Your task to perform on an android device: change notification settings in the gmail app Image 0: 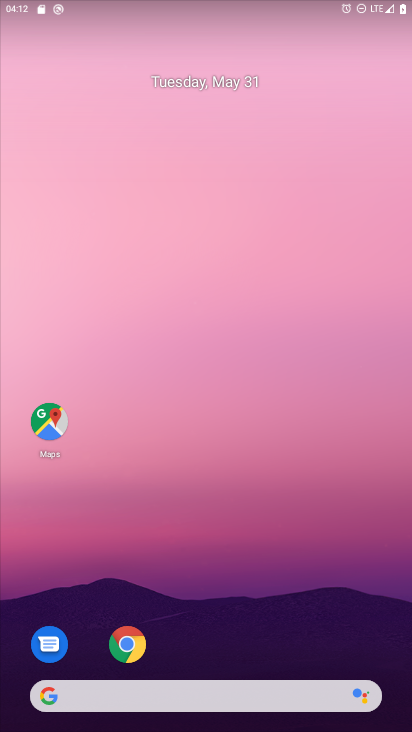
Step 0: drag from (210, 548) to (184, 87)
Your task to perform on an android device: change notification settings in the gmail app Image 1: 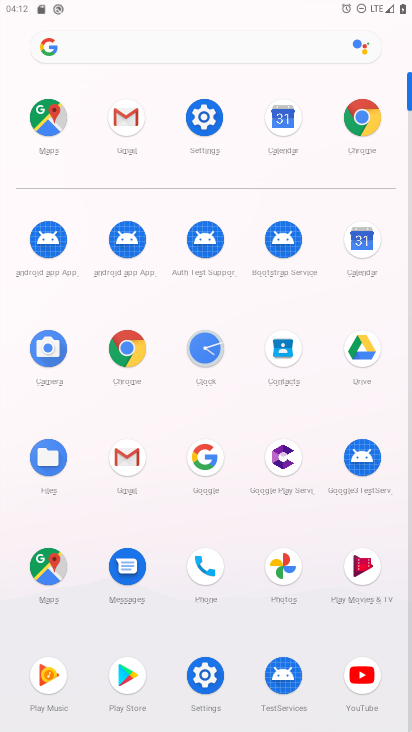
Step 1: click (128, 447)
Your task to perform on an android device: change notification settings in the gmail app Image 2: 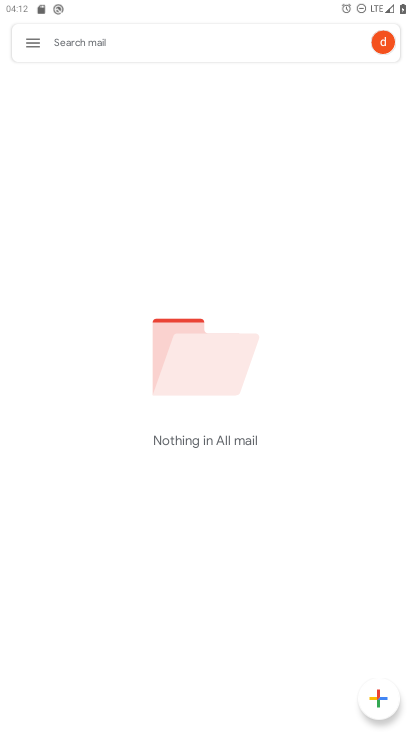
Step 2: click (28, 41)
Your task to perform on an android device: change notification settings in the gmail app Image 3: 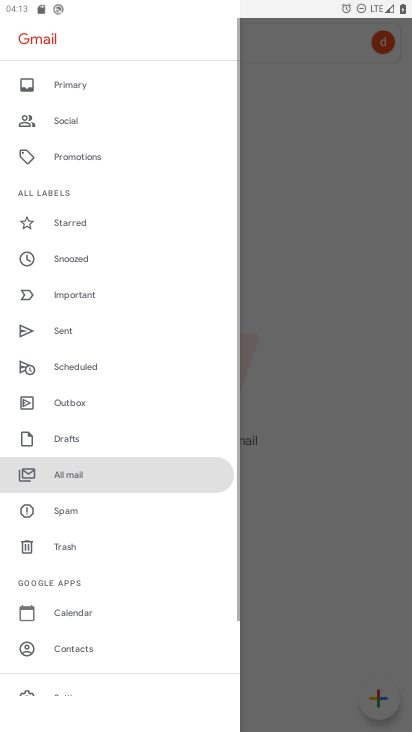
Step 3: drag from (114, 613) to (172, 135)
Your task to perform on an android device: change notification settings in the gmail app Image 4: 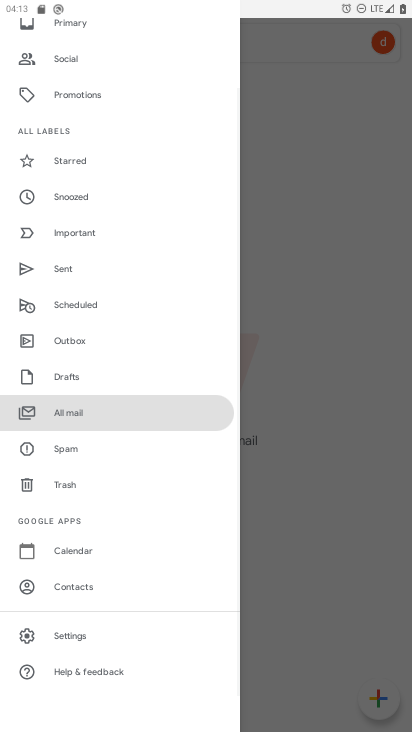
Step 4: click (70, 637)
Your task to perform on an android device: change notification settings in the gmail app Image 5: 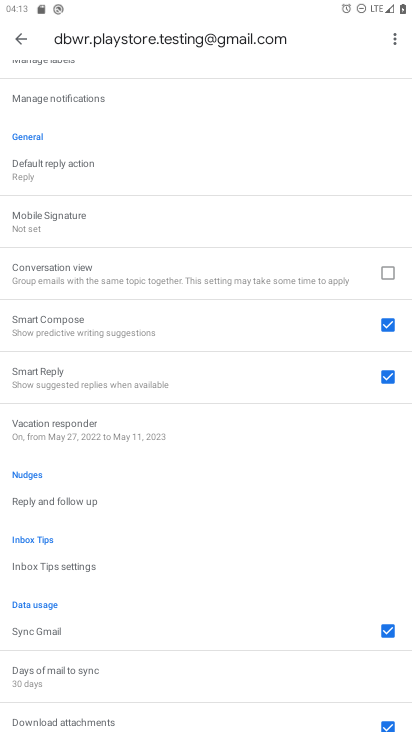
Step 5: drag from (165, 559) to (235, 43)
Your task to perform on an android device: change notification settings in the gmail app Image 6: 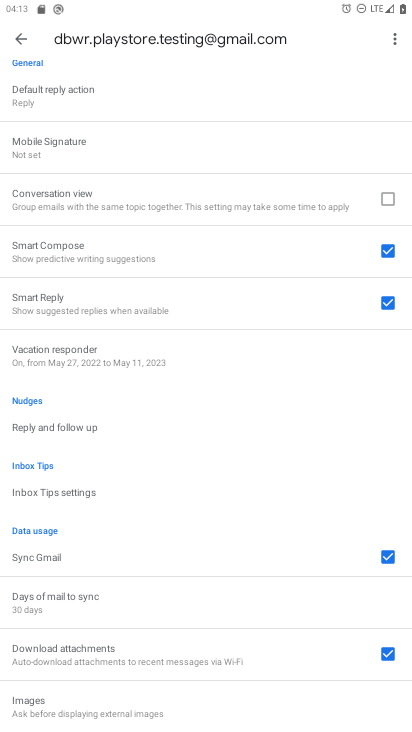
Step 6: drag from (152, 332) to (174, 722)
Your task to perform on an android device: change notification settings in the gmail app Image 7: 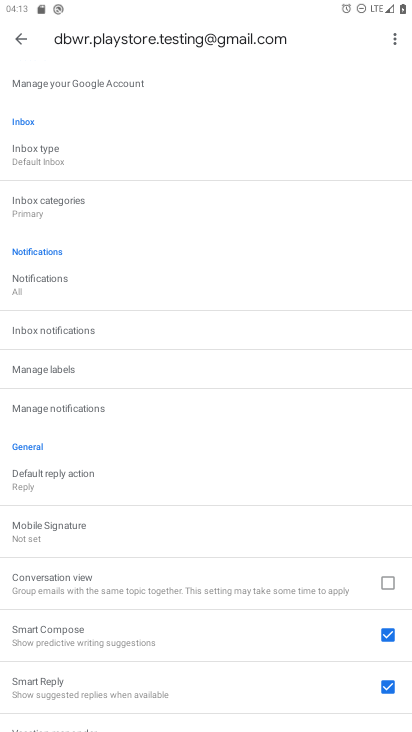
Step 7: click (95, 406)
Your task to perform on an android device: change notification settings in the gmail app Image 8: 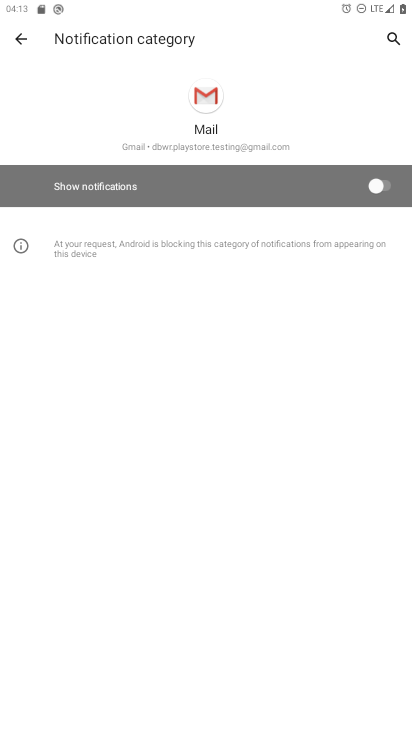
Step 8: click (381, 179)
Your task to perform on an android device: change notification settings in the gmail app Image 9: 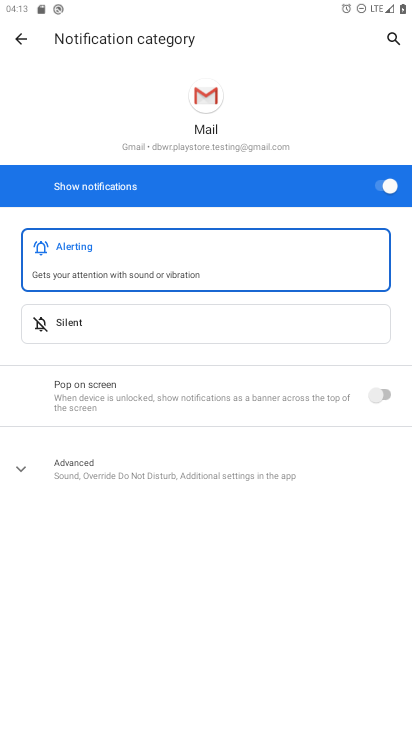
Step 9: task complete